Your task to perform on an android device: Check the settings for the Pandora app Image 0: 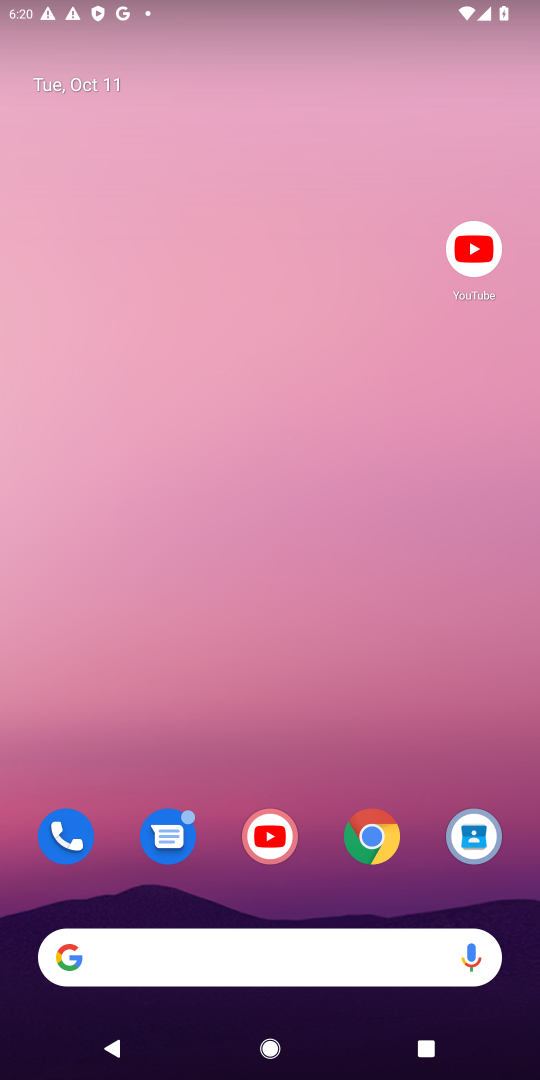
Step 0: drag from (315, 948) to (502, 160)
Your task to perform on an android device: Check the settings for the Pandora app Image 1: 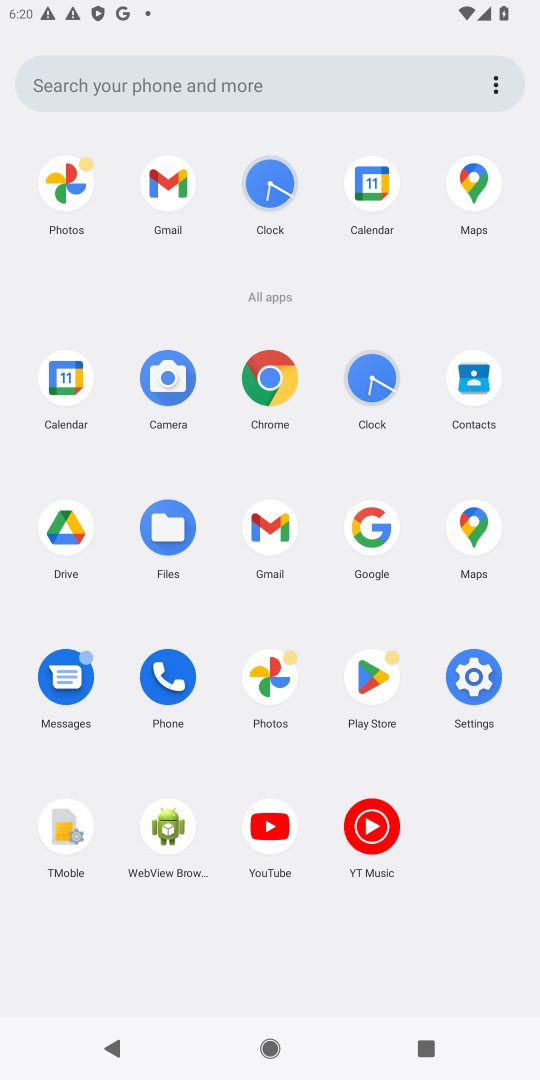
Step 1: task complete